Your task to perform on an android device: turn on data saver in the chrome app Image 0: 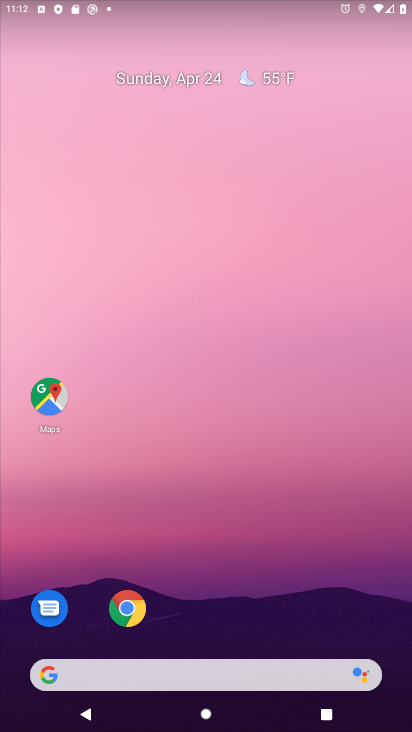
Step 0: click (124, 610)
Your task to perform on an android device: turn on data saver in the chrome app Image 1: 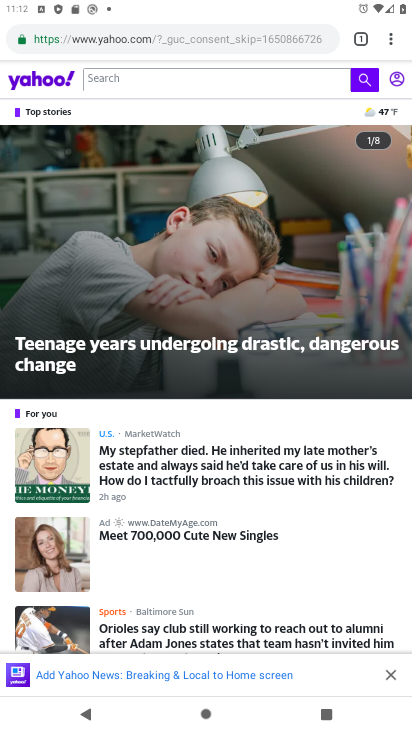
Step 1: click (387, 39)
Your task to perform on an android device: turn on data saver in the chrome app Image 2: 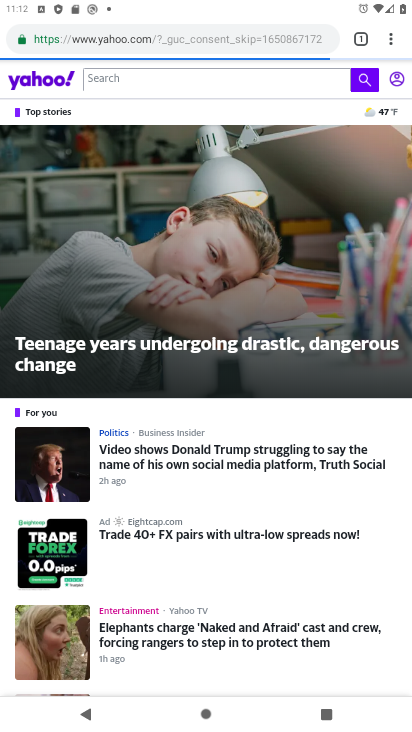
Step 2: click (387, 39)
Your task to perform on an android device: turn on data saver in the chrome app Image 3: 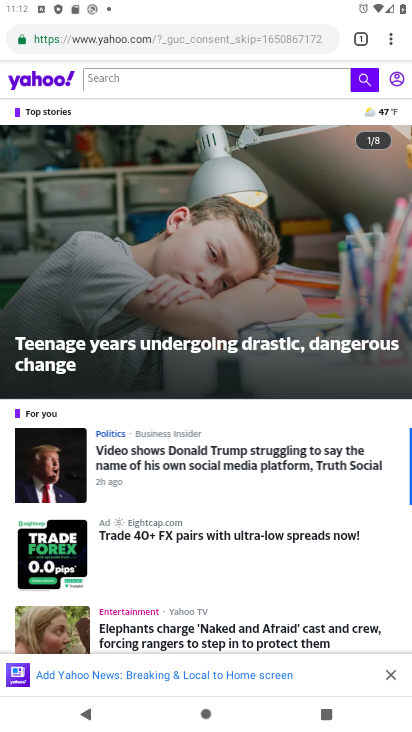
Step 3: click (388, 39)
Your task to perform on an android device: turn on data saver in the chrome app Image 4: 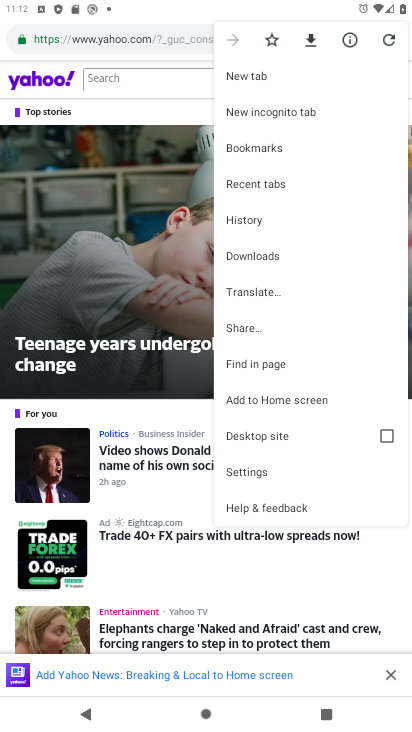
Step 4: click (252, 473)
Your task to perform on an android device: turn on data saver in the chrome app Image 5: 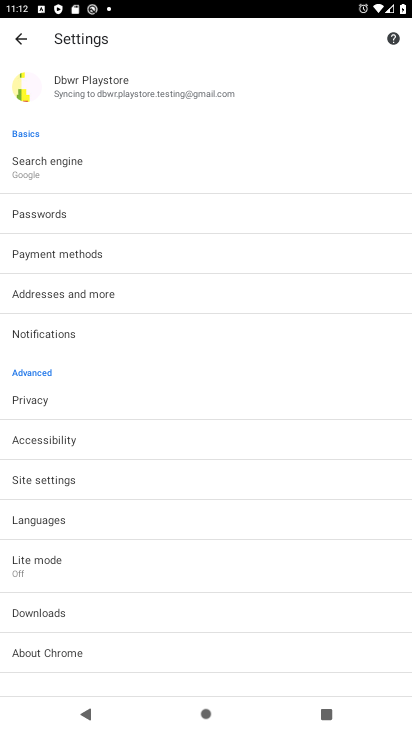
Step 5: drag from (155, 610) to (183, 317)
Your task to perform on an android device: turn on data saver in the chrome app Image 6: 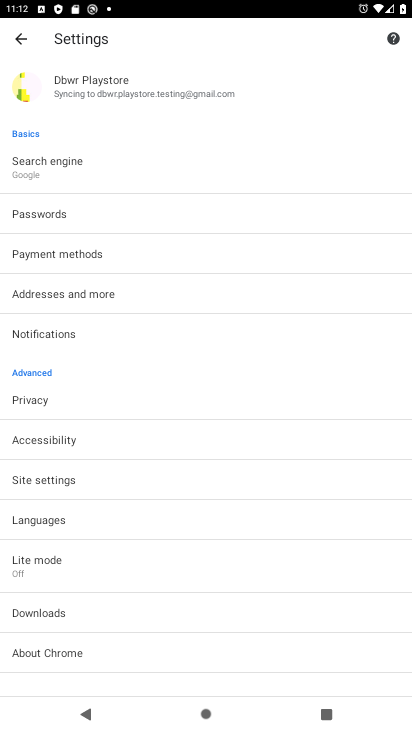
Step 6: click (37, 557)
Your task to perform on an android device: turn on data saver in the chrome app Image 7: 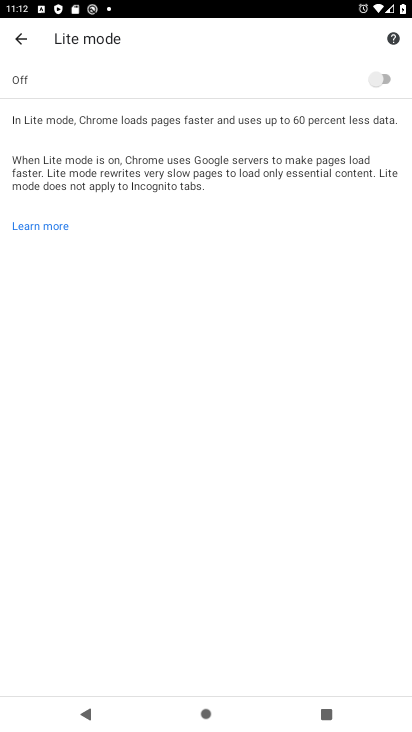
Step 7: click (380, 77)
Your task to perform on an android device: turn on data saver in the chrome app Image 8: 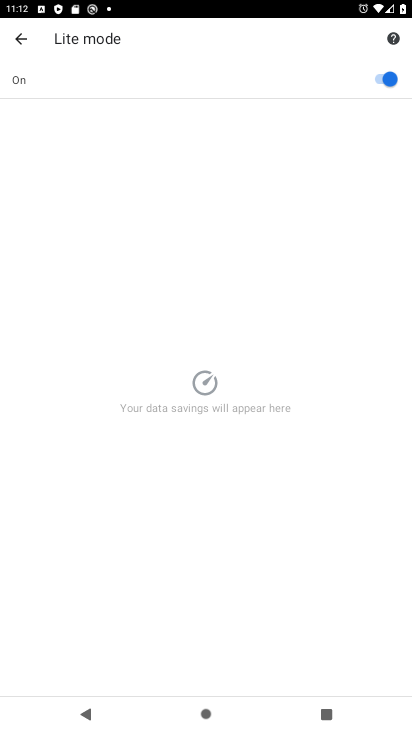
Step 8: task complete